Your task to perform on an android device: show emergency info Image 0: 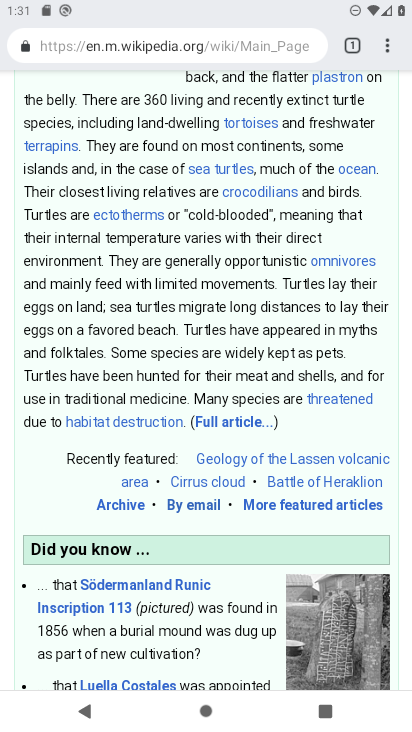
Step 0: press home button
Your task to perform on an android device: show emergency info Image 1: 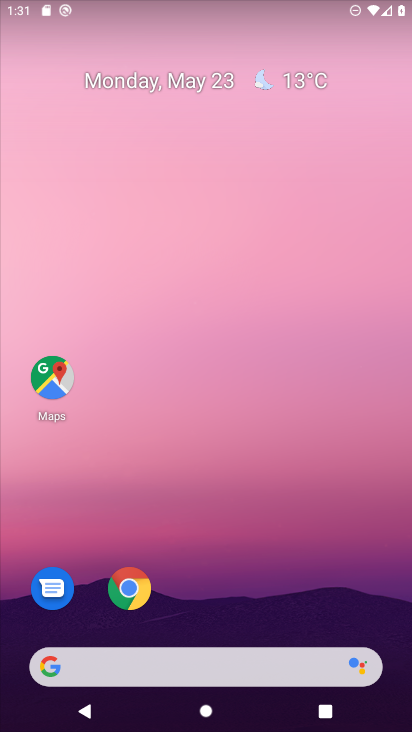
Step 1: drag from (132, 657) to (149, 506)
Your task to perform on an android device: show emergency info Image 2: 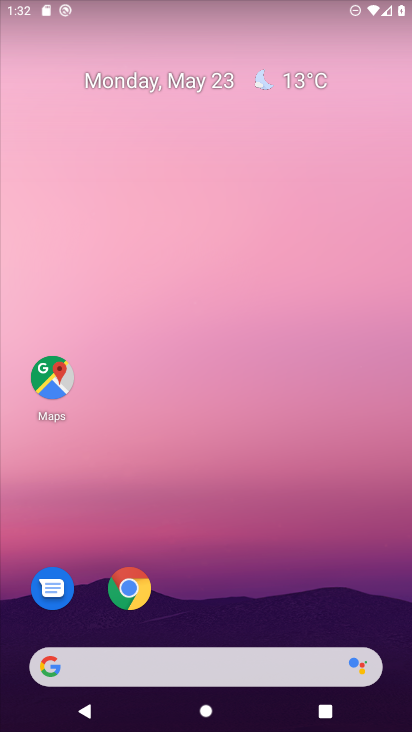
Step 2: click (242, 167)
Your task to perform on an android device: show emergency info Image 3: 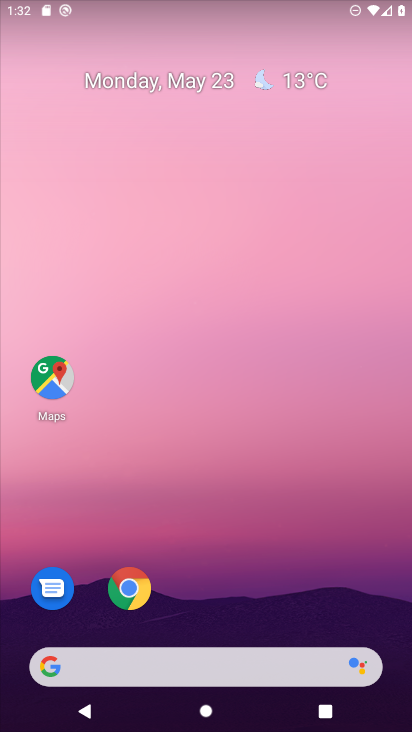
Step 3: drag from (276, 381) to (277, 187)
Your task to perform on an android device: show emergency info Image 4: 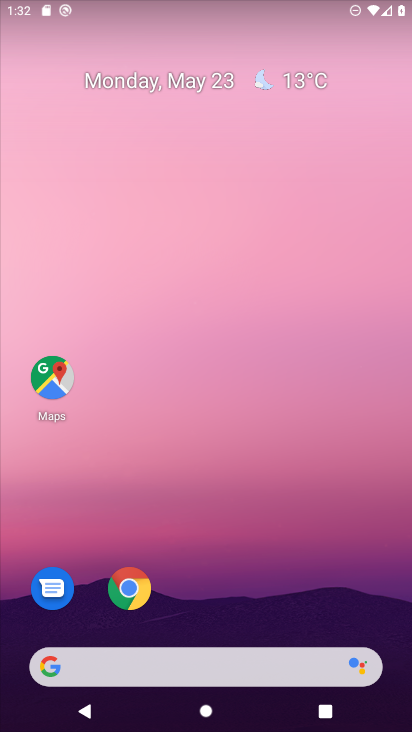
Step 4: drag from (219, 625) to (219, 205)
Your task to perform on an android device: show emergency info Image 5: 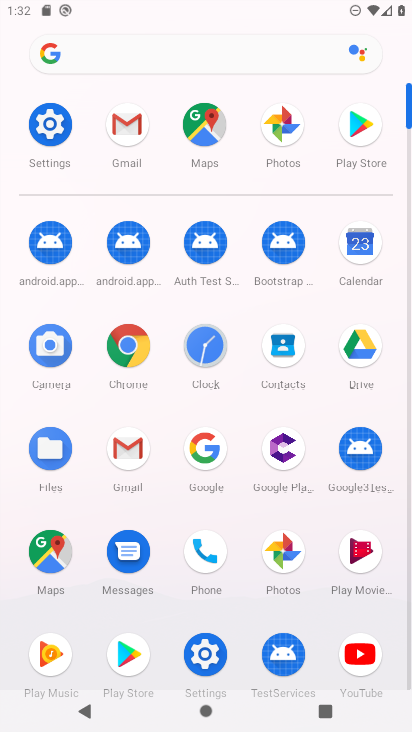
Step 5: click (46, 130)
Your task to perform on an android device: show emergency info Image 6: 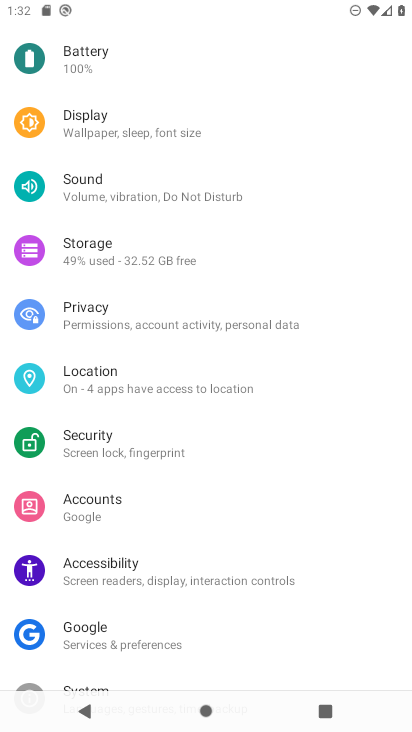
Step 6: drag from (163, 652) to (152, 164)
Your task to perform on an android device: show emergency info Image 7: 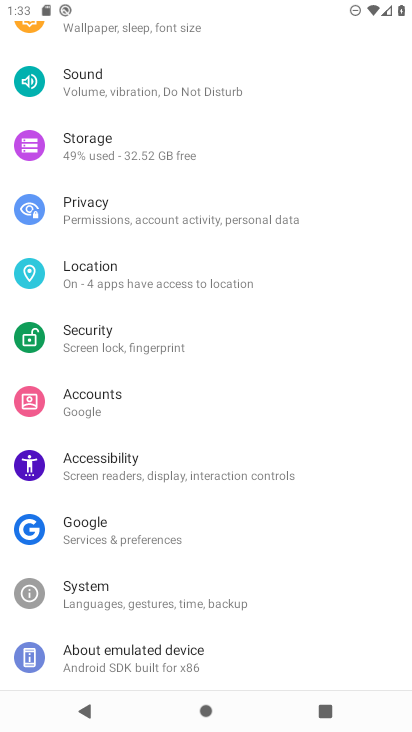
Step 7: click (112, 672)
Your task to perform on an android device: show emergency info Image 8: 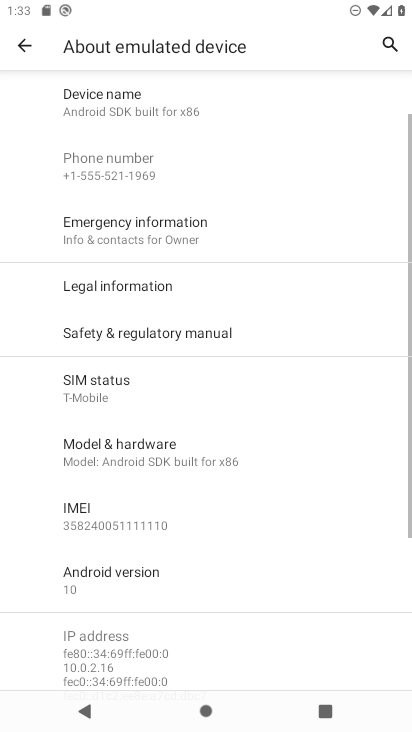
Step 8: click (137, 231)
Your task to perform on an android device: show emergency info Image 9: 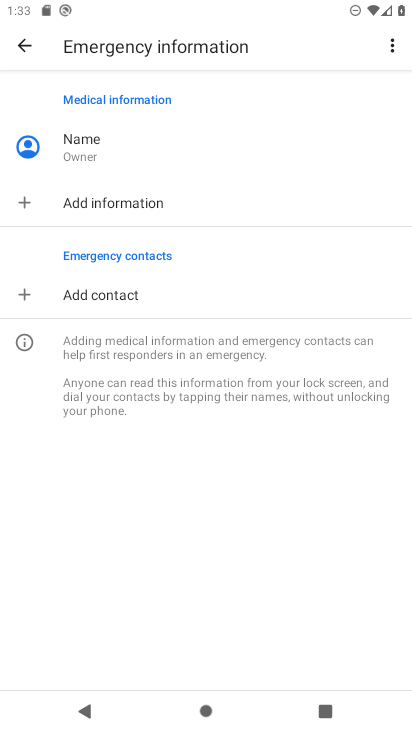
Step 9: task complete